Your task to perform on an android device: Open maps Image 0: 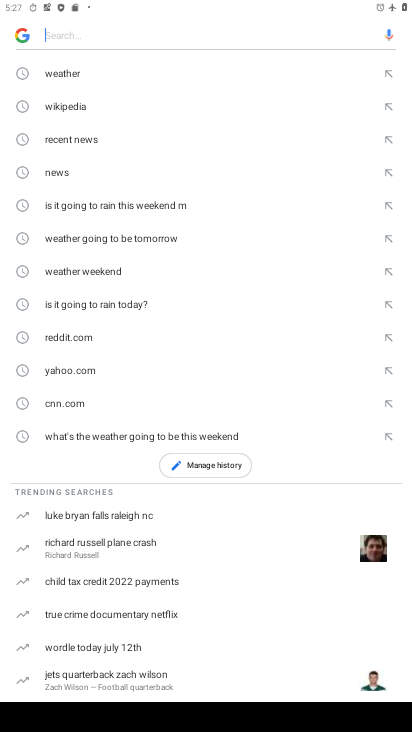
Step 0: press home button
Your task to perform on an android device: Open maps Image 1: 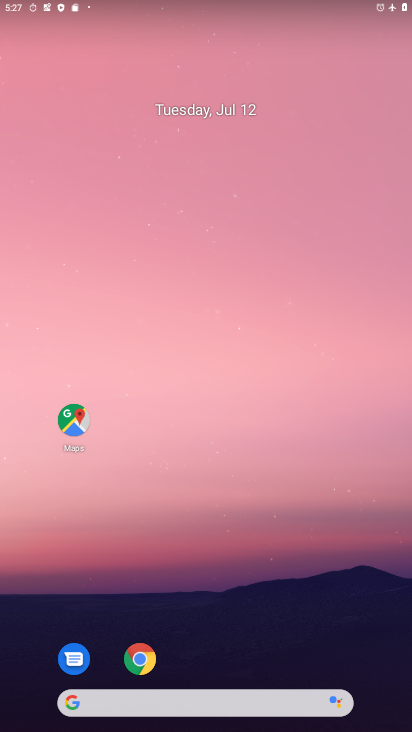
Step 1: click (73, 429)
Your task to perform on an android device: Open maps Image 2: 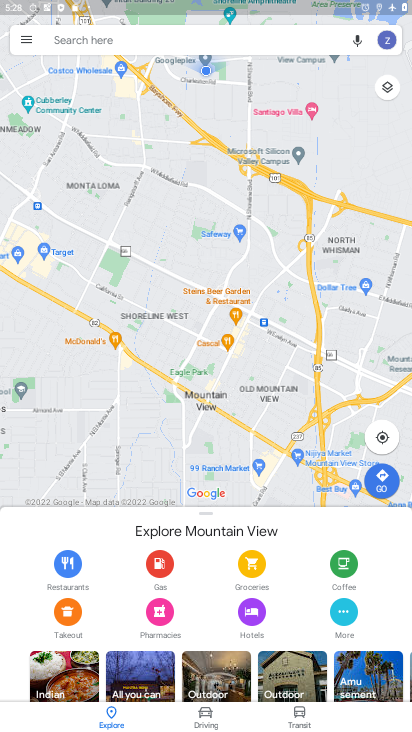
Step 2: task complete